Your task to perform on an android device: Open ESPN.com Image 0: 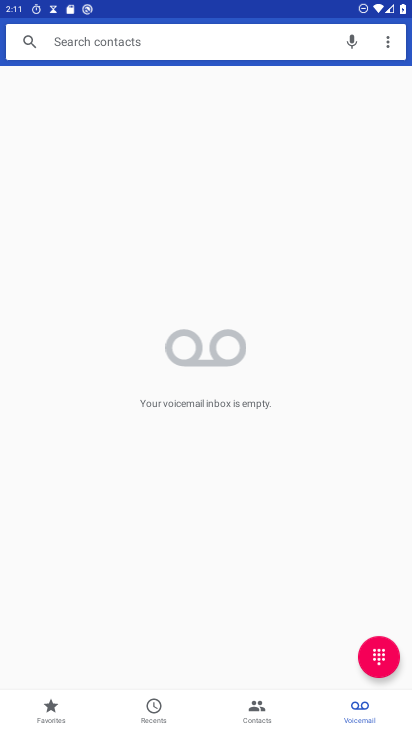
Step 0: press home button
Your task to perform on an android device: Open ESPN.com Image 1: 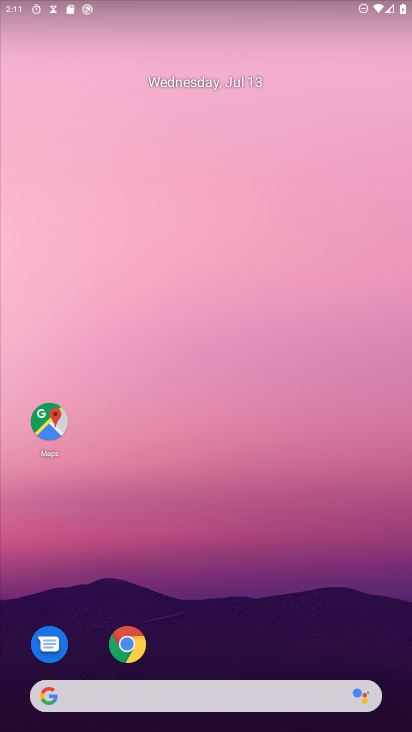
Step 1: click (200, 690)
Your task to perform on an android device: Open ESPN.com Image 2: 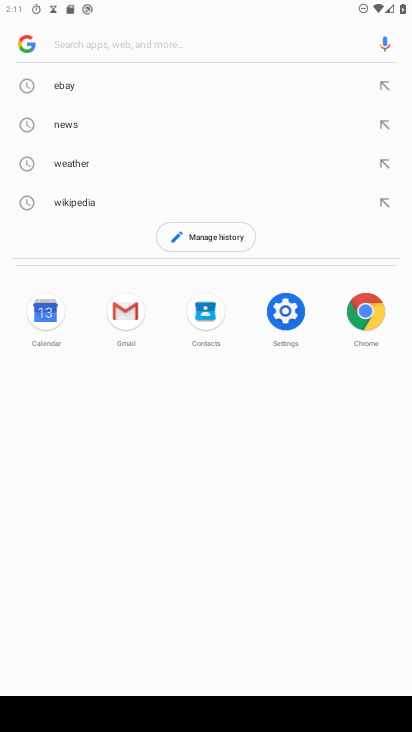
Step 2: type "ESPN.com"
Your task to perform on an android device: Open ESPN.com Image 3: 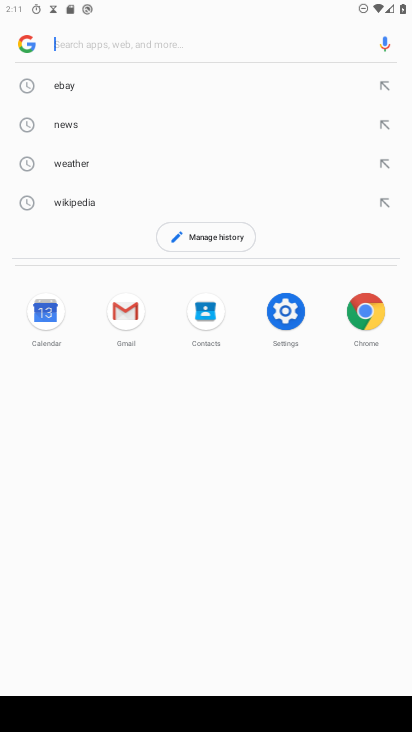
Step 3: click (68, 39)
Your task to perform on an android device: Open ESPN.com Image 4: 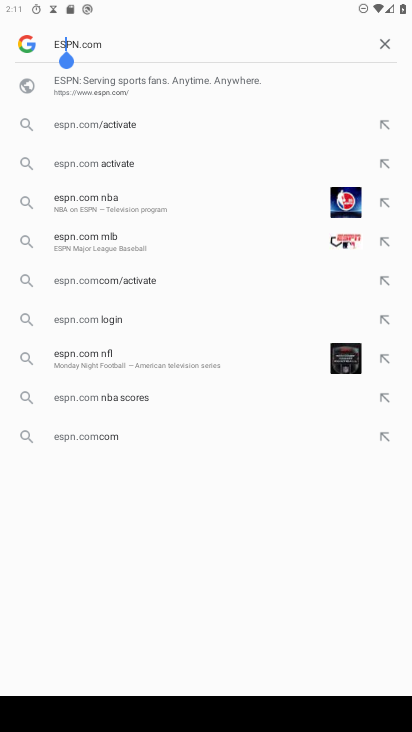
Step 4: press enter
Your task to perform on an android device: Open ESPN.com Image 5: 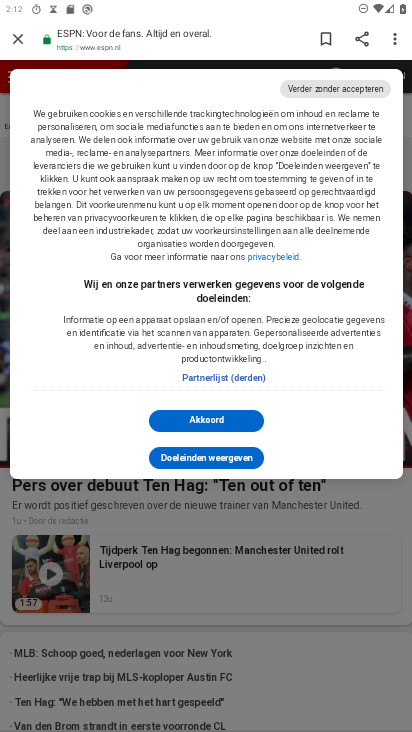
Step 5: task complete